Your task to perform on an android device: all mails in gmail Image 0: 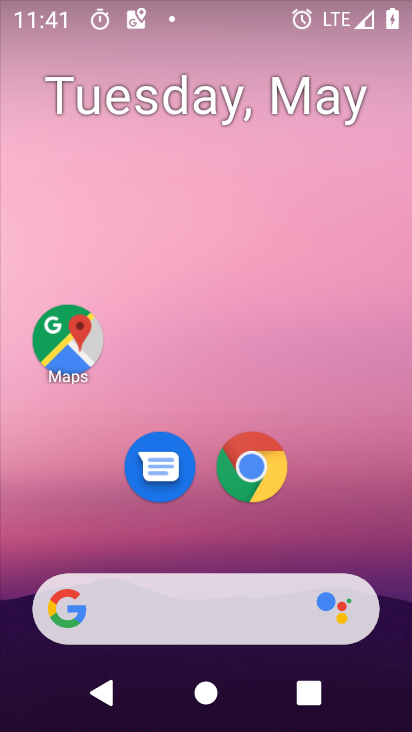
Step 0: drag from (354, 488) to (248, 24)
Your task to perform on an android device: all mails in gmail Image 1: 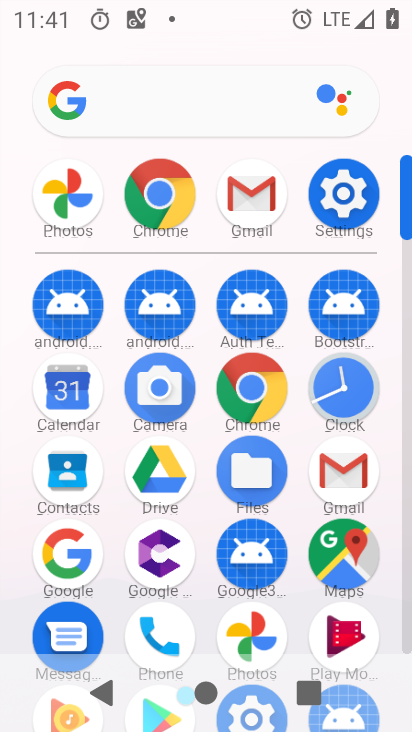
Step 1: drag from (5, 536) to (9, 166)
Your task to perform on an android device: all mails in gmail Image 2: 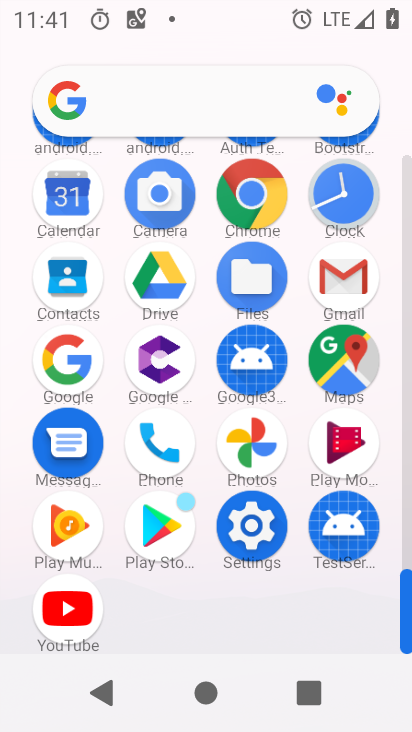
Step 2: click (342, 268)
Your task to perform on an android device: all mails in gmail Image 3: 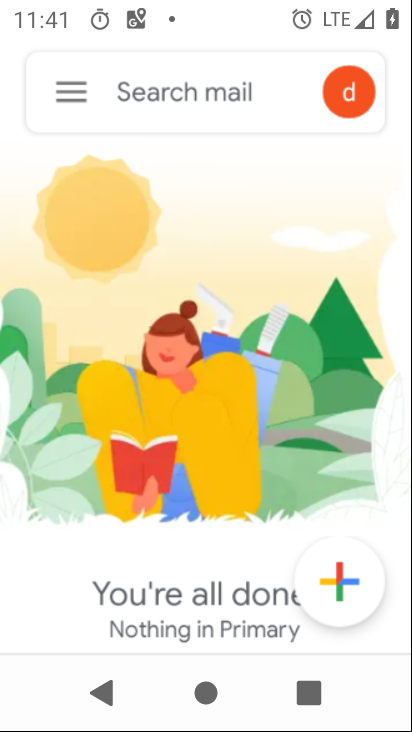
Step 3: click (81, 89)
Your task to perform on an android device: all mails in gmail Image 4: 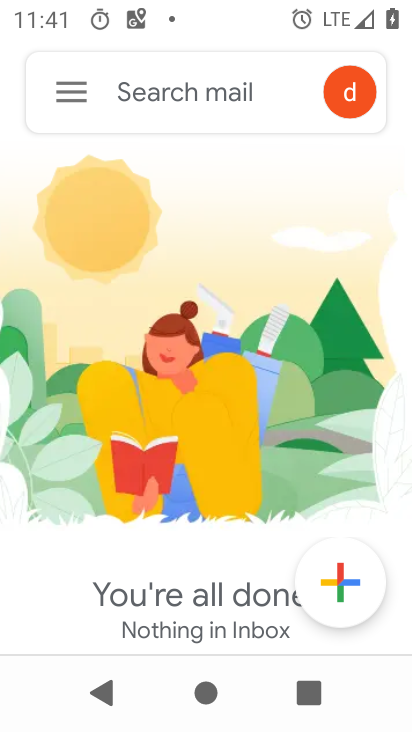
Step 4: click (79, 93)
Your task to perform on an android device: all mails in gmail Image 5: 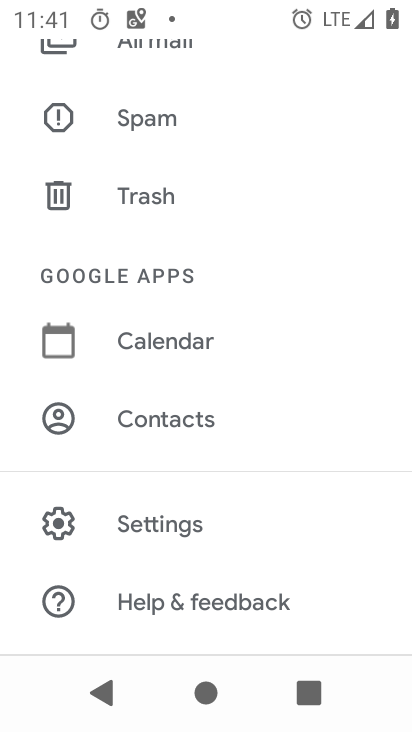
Step 5: drag from (244, 211) to (245, 541)
Your task to perform on an android device: all mails in gmail Image 6: 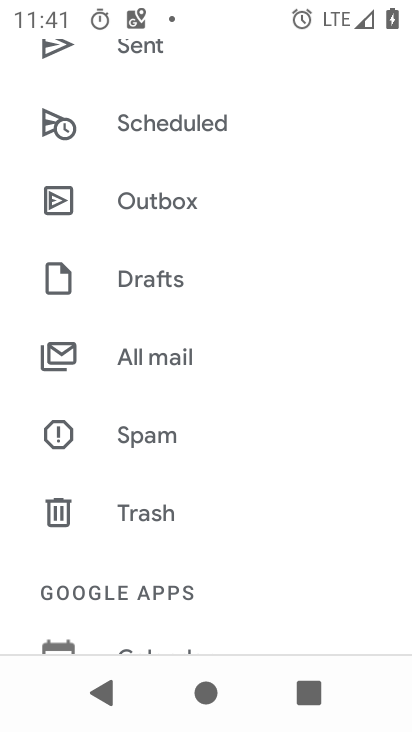
Step 6: click (176, 357)
Your task to perform on an android device: all mails in gmail Image 7: 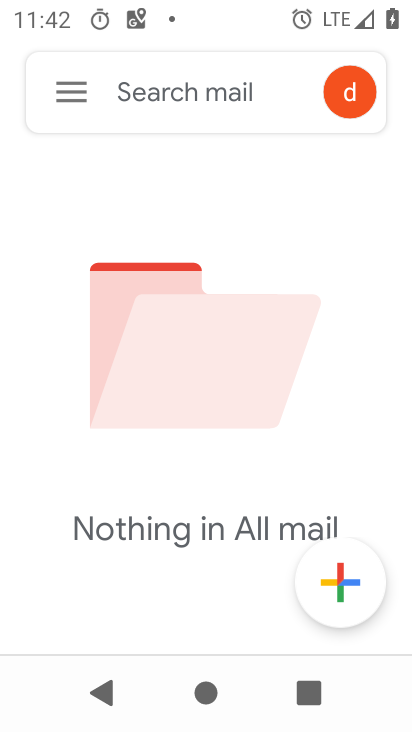
Step 7: task complete